Your task to perform on an android device: allow notifications from all sites in the chrome app Image 0: 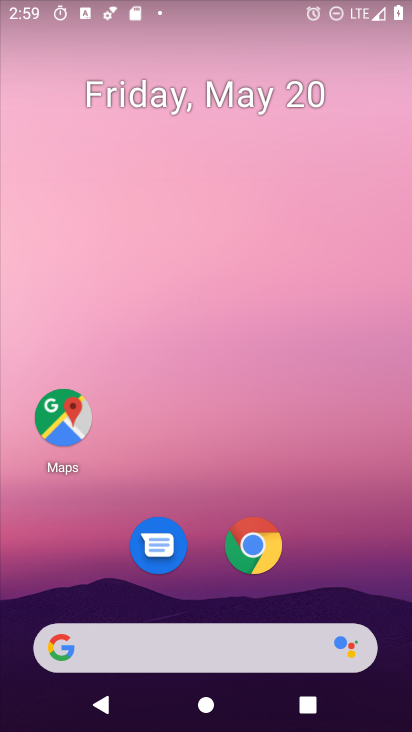
Step 0: drag from (250, 658) to (226, 0)
Your task to perform on an android device: allow notifications from all sites in the chrome app Image 1: 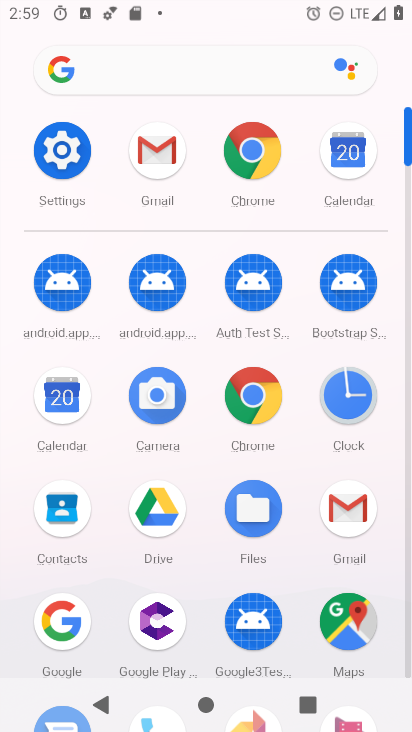
Step 1: click (232, 414)
Your task to perform on an android device: allow notifications from all sites in the chrome app Image 2: 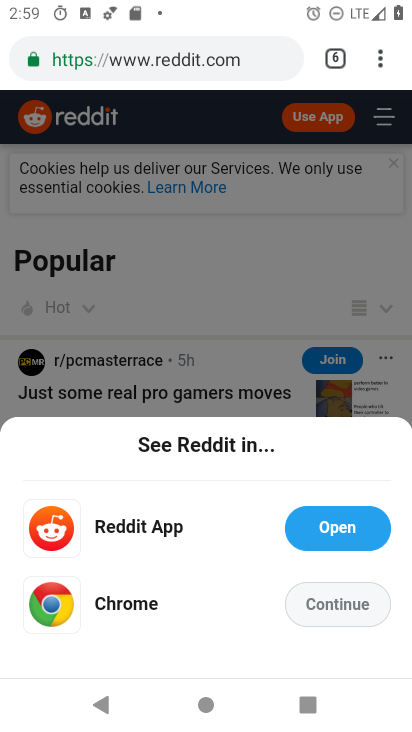
Step 2: click (370, 58)
Your task to perform on an android device: allow notifications from all sites in the chrome app Image 3: 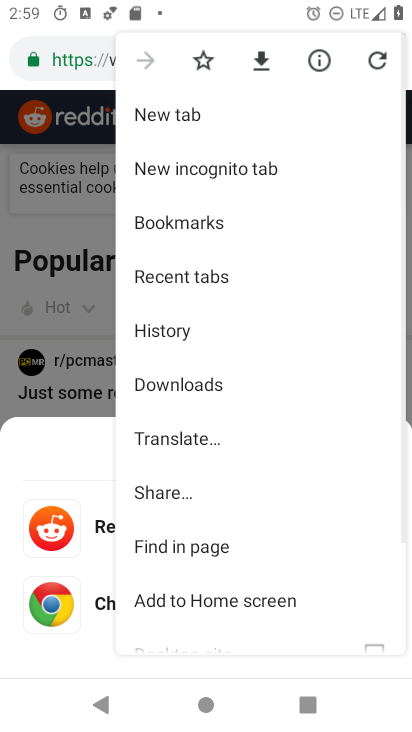
Step 3: drag from (203, 565) to (240, 114)
Your task to perform on an android device: allow notifications from all sites in the chrome app Image 4: 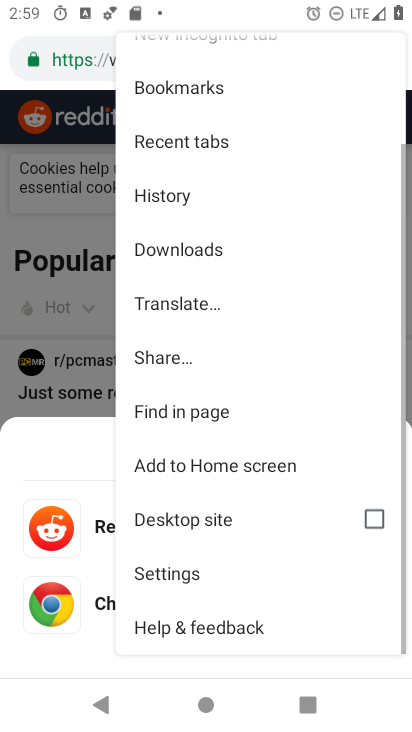
Step 4: click (228, 576)
Your task to perform on an android device: allow notifications from all sites in the chrome app Image 5: 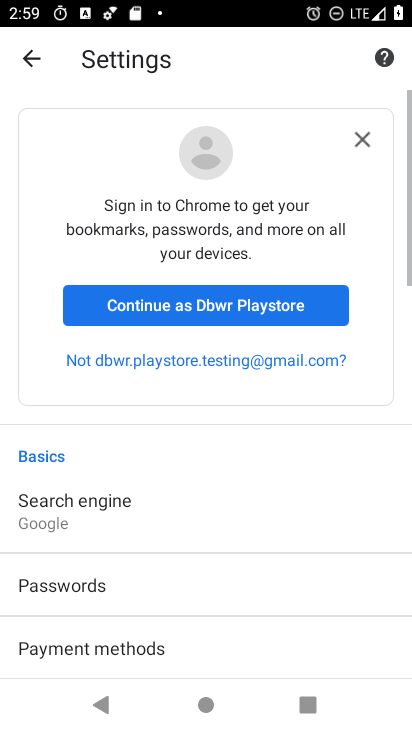
Step 5: drag from (237, 629) to (259, 23)
Your task to perform on an android device: allow notifications from all sites in the chrome app Image 6: 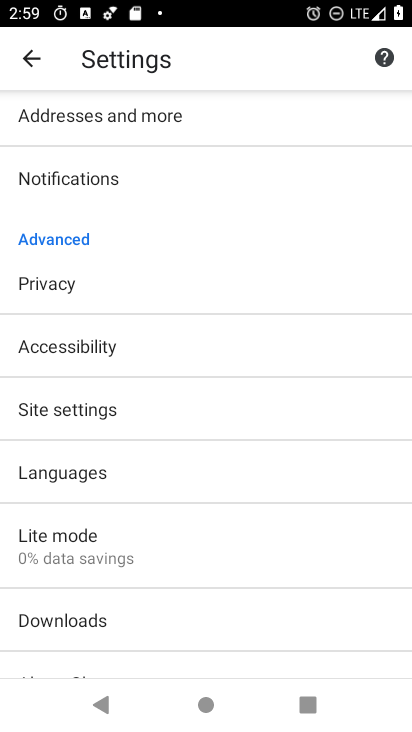
Step 6: click (176, 183)
Your task to perform on an android device: allow notifications from all sites in the chrome app Image 7: 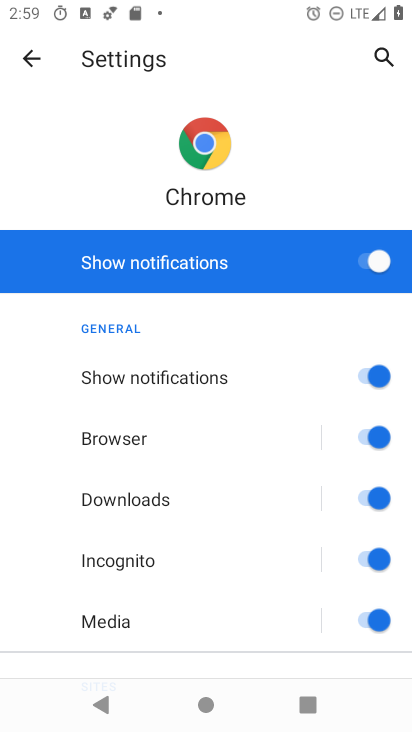
Step 7: task complete